Your task to perform on an android device: toggle location history Image 0: 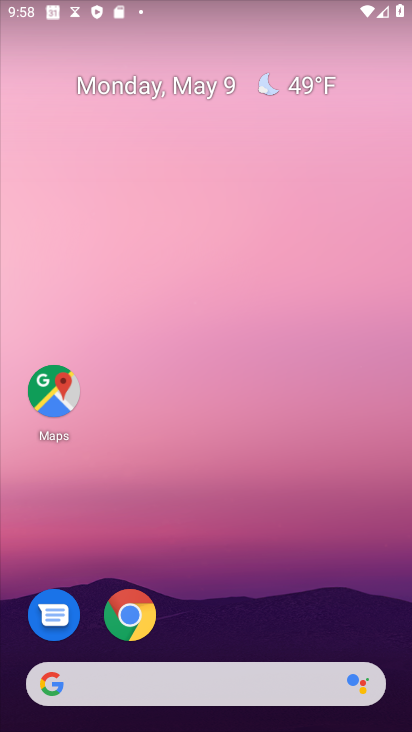
Step 0: drag from (202, 363) to (223, 103)
Your task to perform on an android device: toggle location history Image 1: 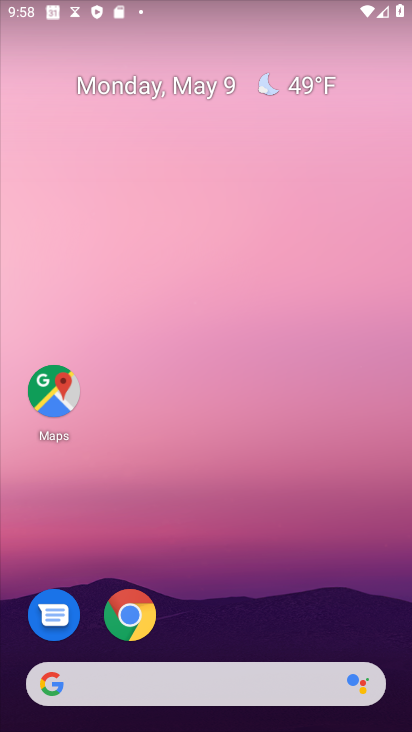
Step 1: drag from (254, 524) to (255, 0)
Your task to perform on an android device: toggle location history Image 2: 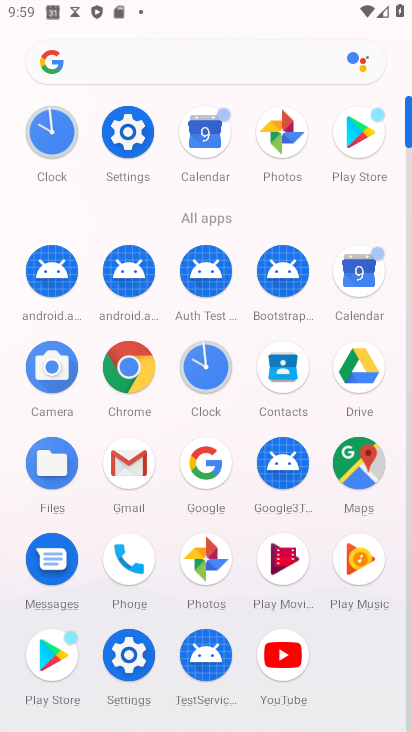
Step 2: click (134, 135)
Your task to perform on an android device: toggle location history Image 3: 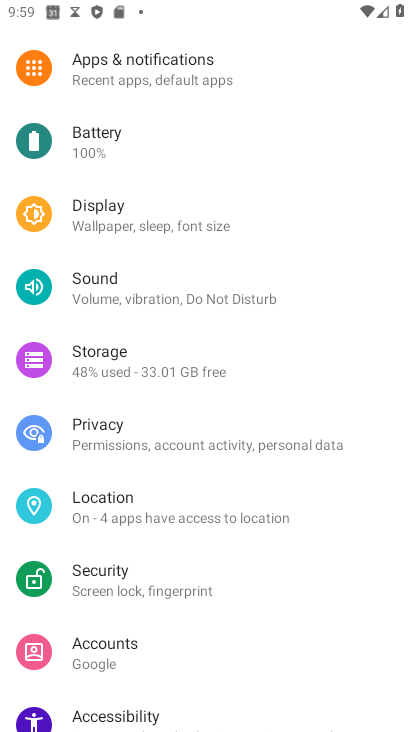
Step 3: click (123, 513)
Your task to perform on an android device: toggle location history Image 4: 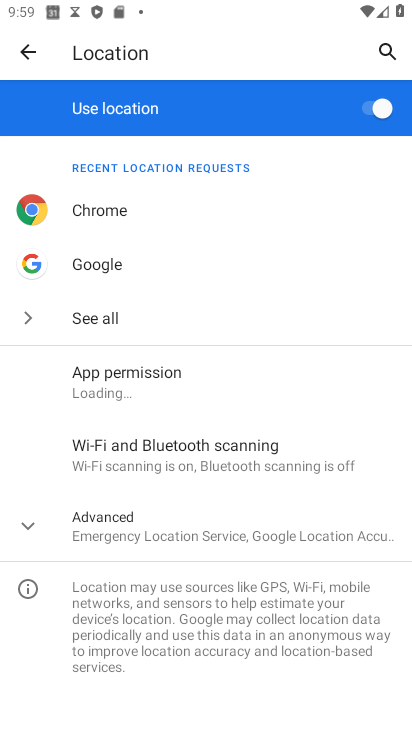
Step 4: click (31, 531)
Your task to perform on an android device: toggle location history Image 5: 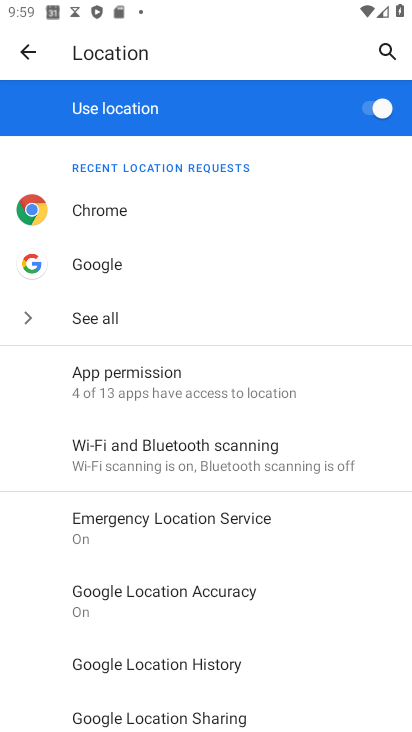
Step 5: click (213, 667)
Your task to perform on an android device: toggle location history Image 6: 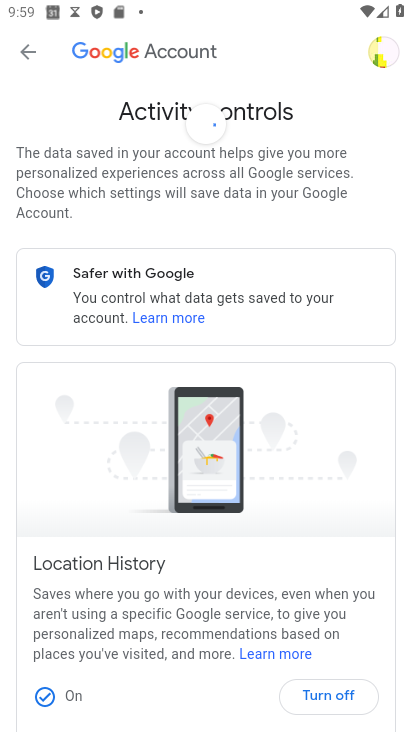
Step 6: drag from (296, 565) to (295, 152)
Your task to perform on an android device: toggle location history Image 7: 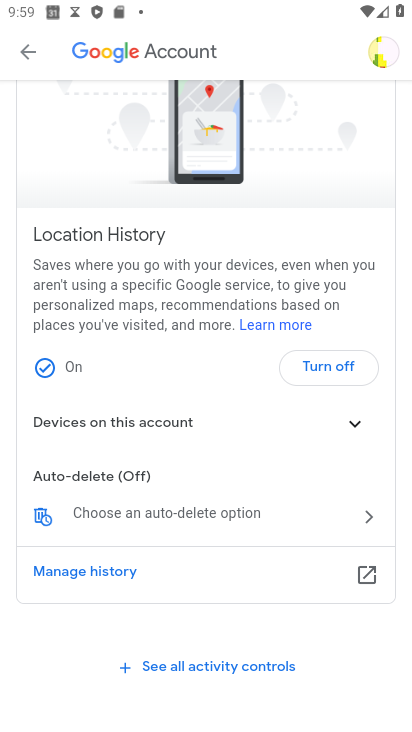
Step 7: click (333, 368)
Your task to perform on an android device: toggle location history Image 8: 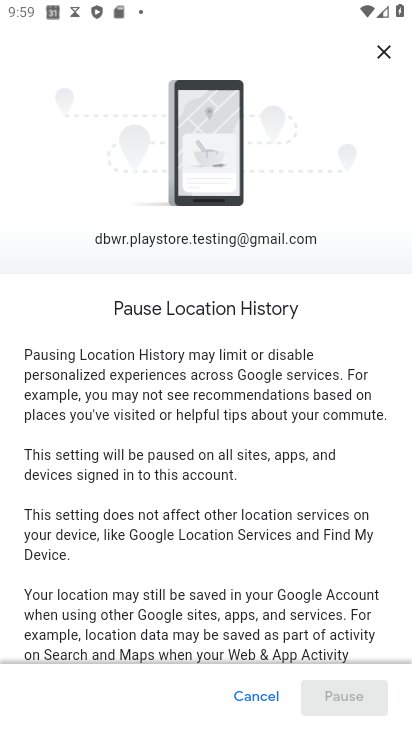
Step 8: drag from (284, 588) to (280, 84)
Your task to perform on an android device: toggle location history Image 9: 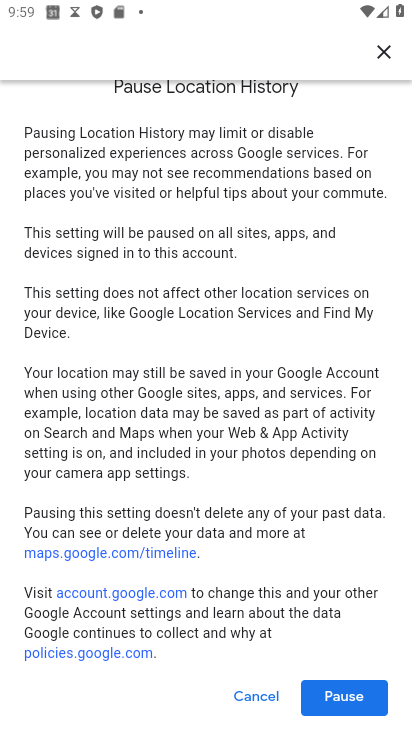
Step 9: click (327, 700)
Your task to perform on an android device: toggle location history Image 10: 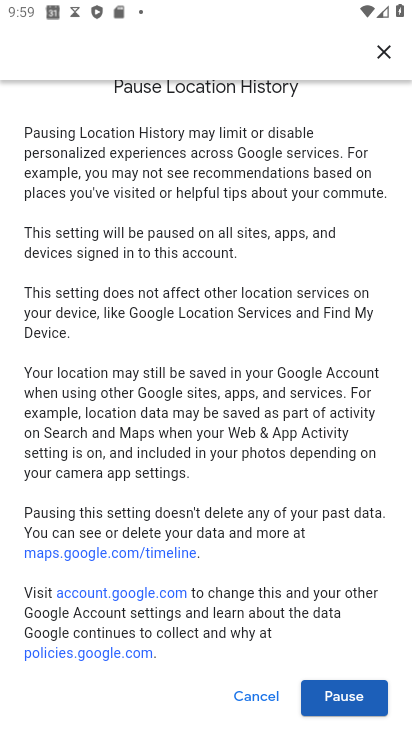
Step 10: click (346, 704)
Your task to perform on an android device: toggle location history Image 11: 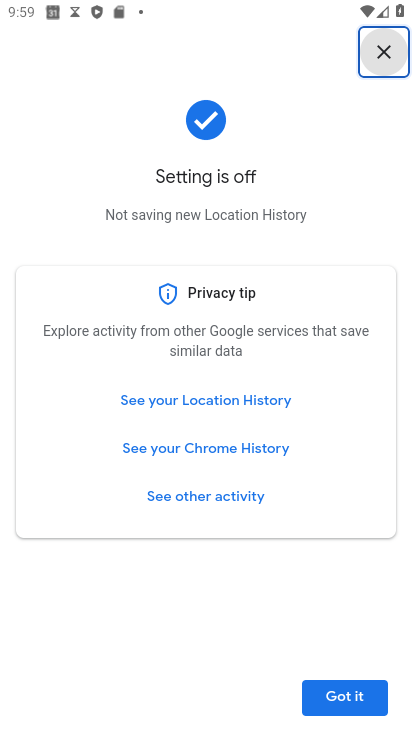
Step 11: click (363, 700)
Your task to perform on an android device: toggle location history Image 12: 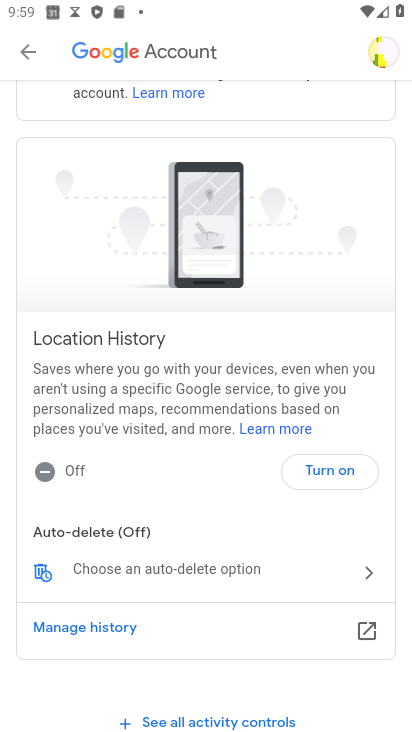
Step 12: task complete